Your task to perform on an android device: change alarm snooze length Image 0: 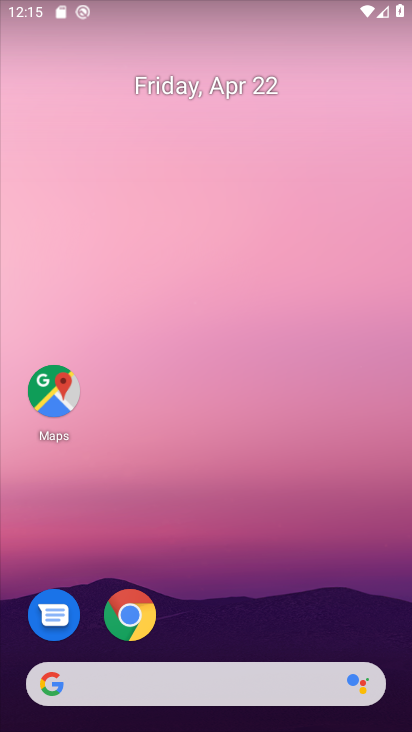
Step 0: drag from (349, 626) to (293, 4)
Your task to perform on an android device: change alarm snooze length Image 1: 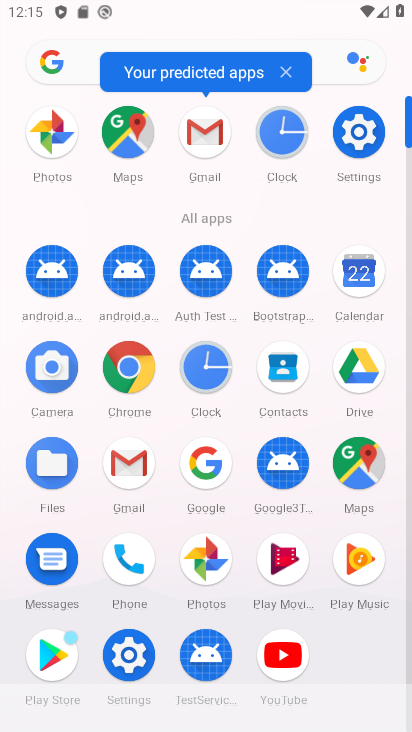
Step 1: click (285, 132)
Your task to perform on an android device: change alarm snooze length Image 2: 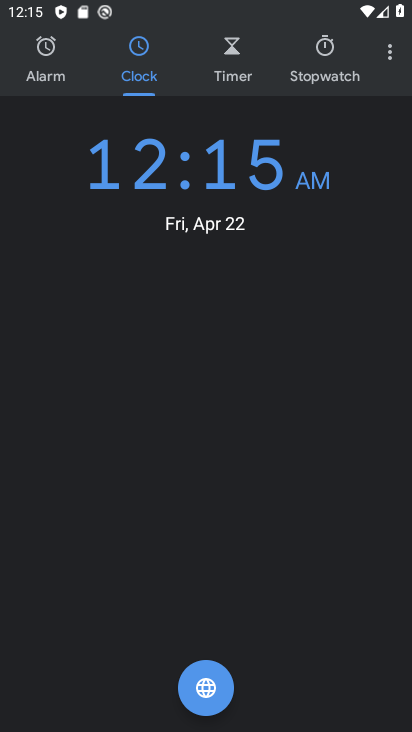
Step 2: click (384, 71)
Your task to perform on an android device: change alarm snooze length Image 3: 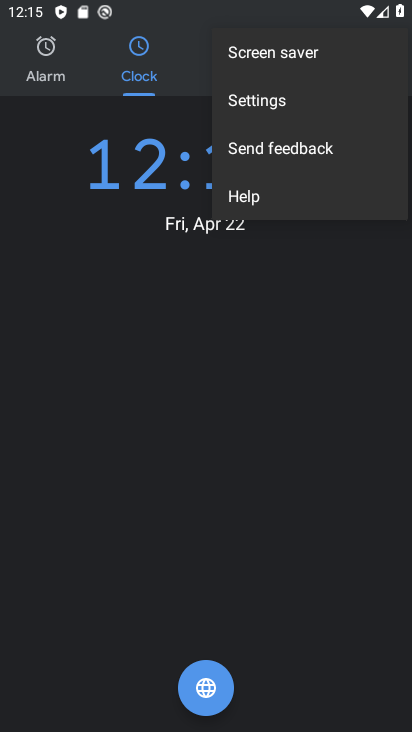
Step 3: click (252, 110)
Your task to perform on an android device: change alarm snooze length Image 4: 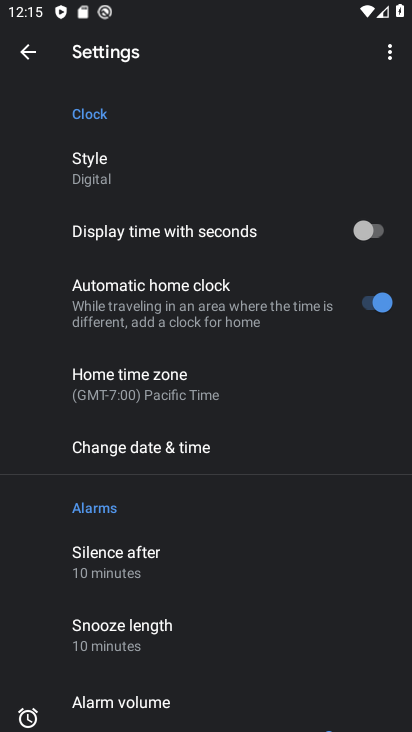
Step 4: drag from (203, 576) to (191, 199)
Your task to perform on an android device: change alarm snooze length Image 5: 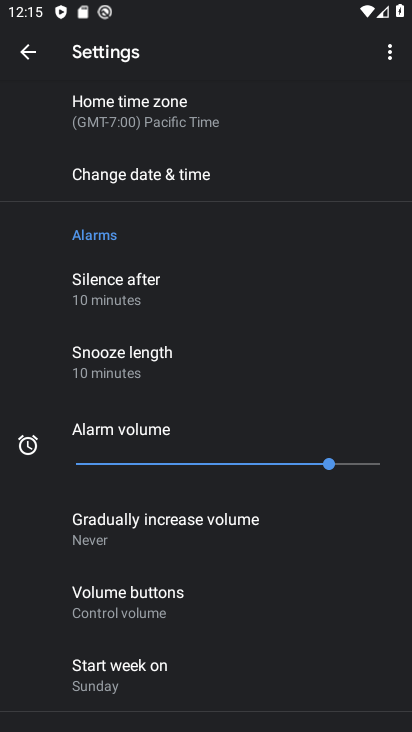
Step 5: click (97, 356)
Your task to perform on an android device: change alarm snooze length Image 6: 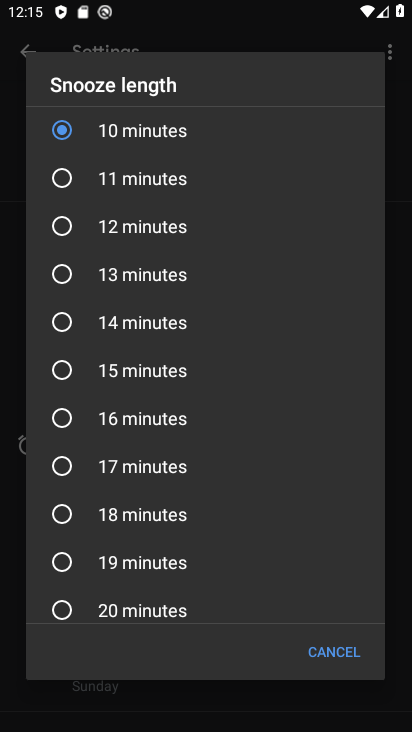
Step 6: click (63, 189)
Your task to perform on an android device: change alarm snooze length Image 7: 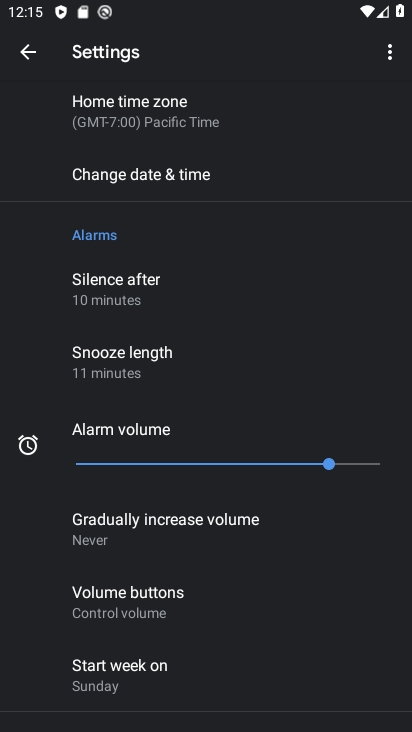
Step 7: task complete